Your task to perform on an android device: open wifi settings Image 0: 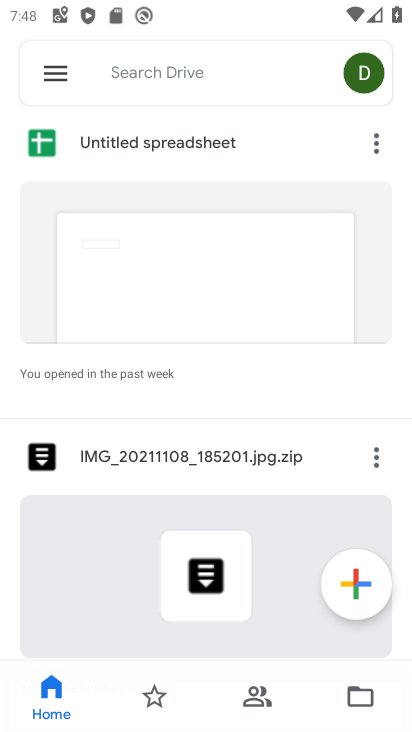
Step 0: press home button
Your task to perform on an android device: open wifi settings Image 1: 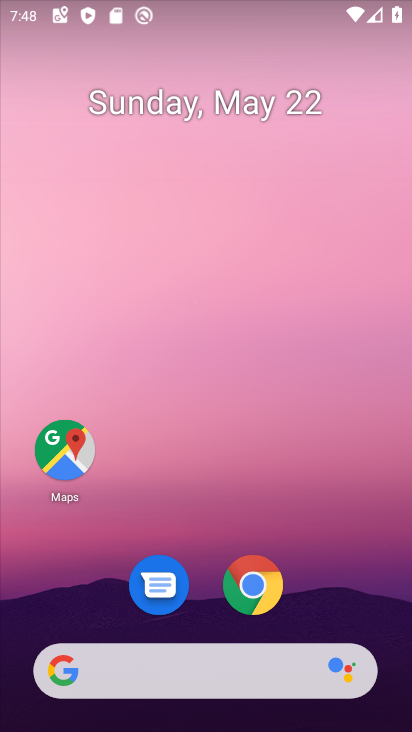
Step 1: drag from (210, 481) to (280, 30)
Your task to perform on an android device: open wifi settings Image 2: 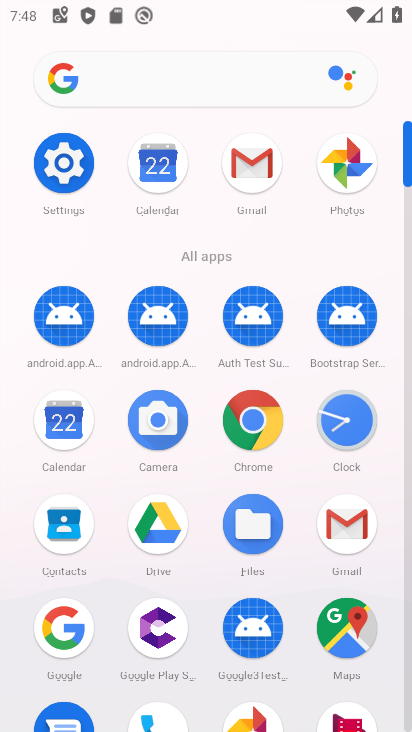
Step 2: click (66, 164)
Your task to perform on an android device: open wifi settings Image 3: 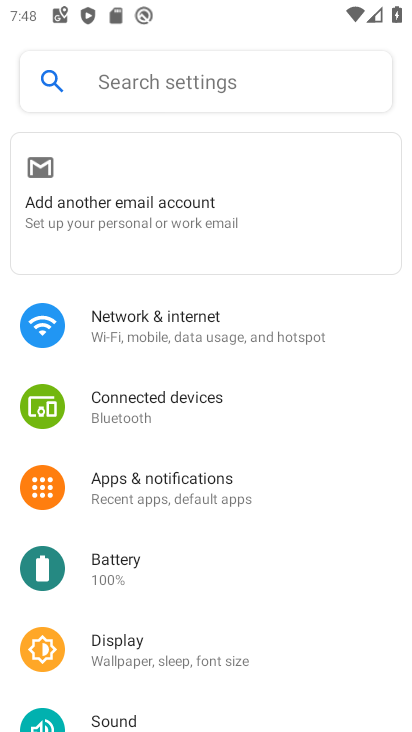
Step 3: click (150, 323)
Your task to perform on an android device: open wifi settings Image 4: 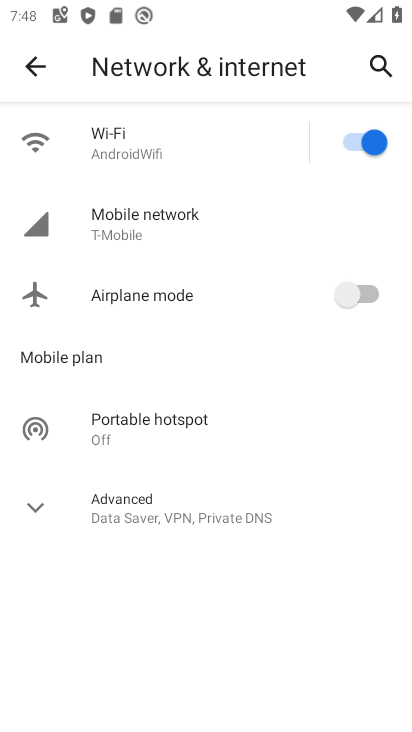
Step 4: click (160, 143)
Your task to perform on an android device: open wifi settings Image 5: 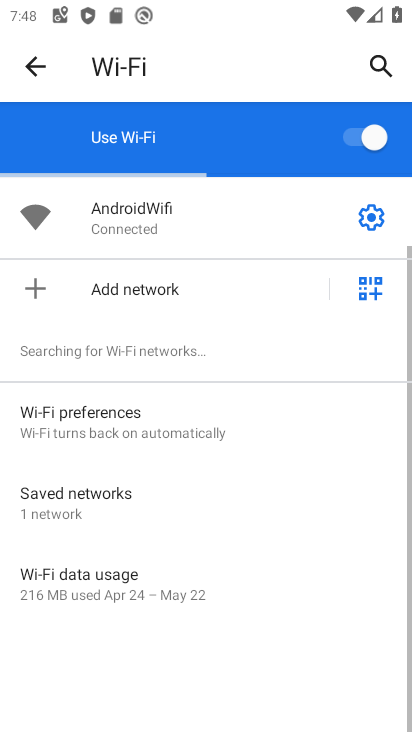
Step 5: task complete